Your task to perform on an android device: uninstall "Microsoft Outlook" Image 0: 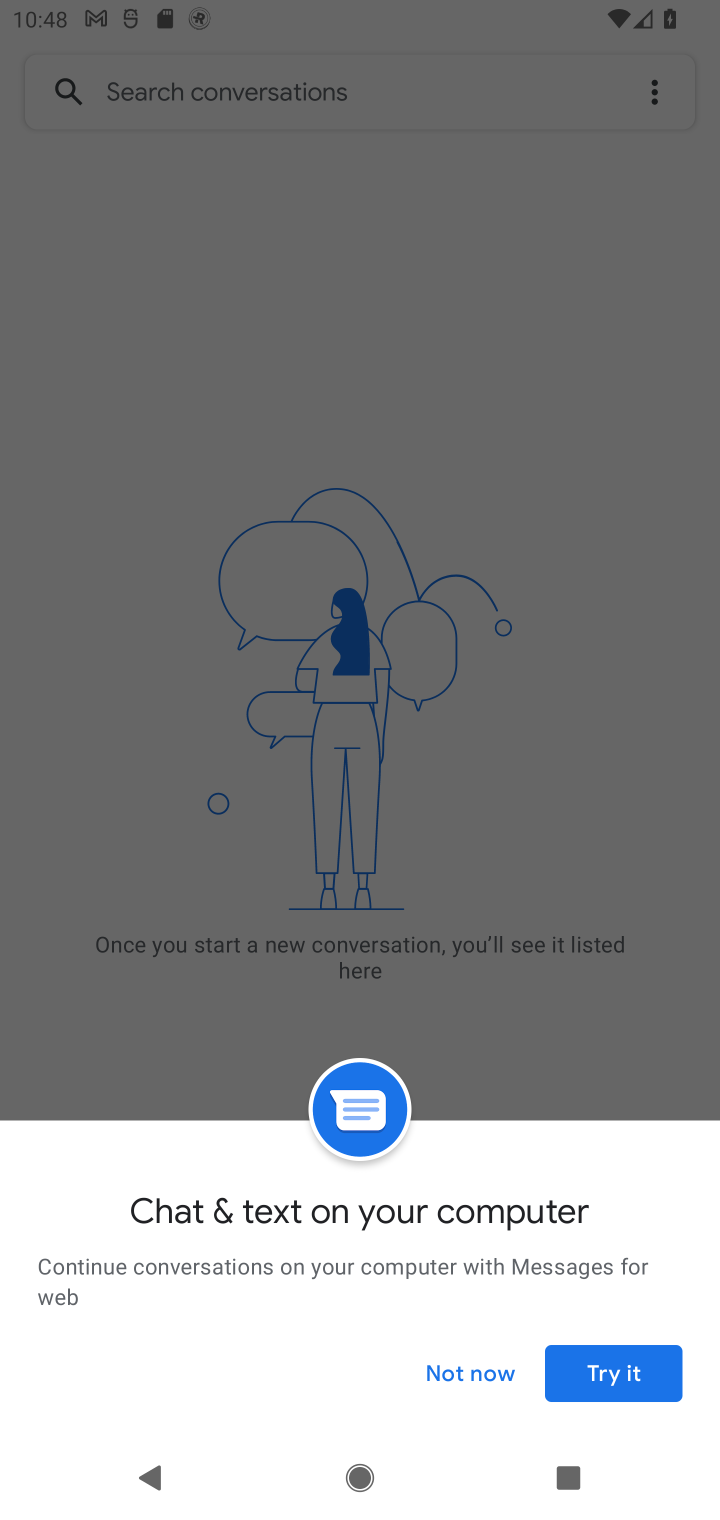
Step 0: press home button
Your task to perform on an android device: uninstall "Microsoft Outlook" Image 1: 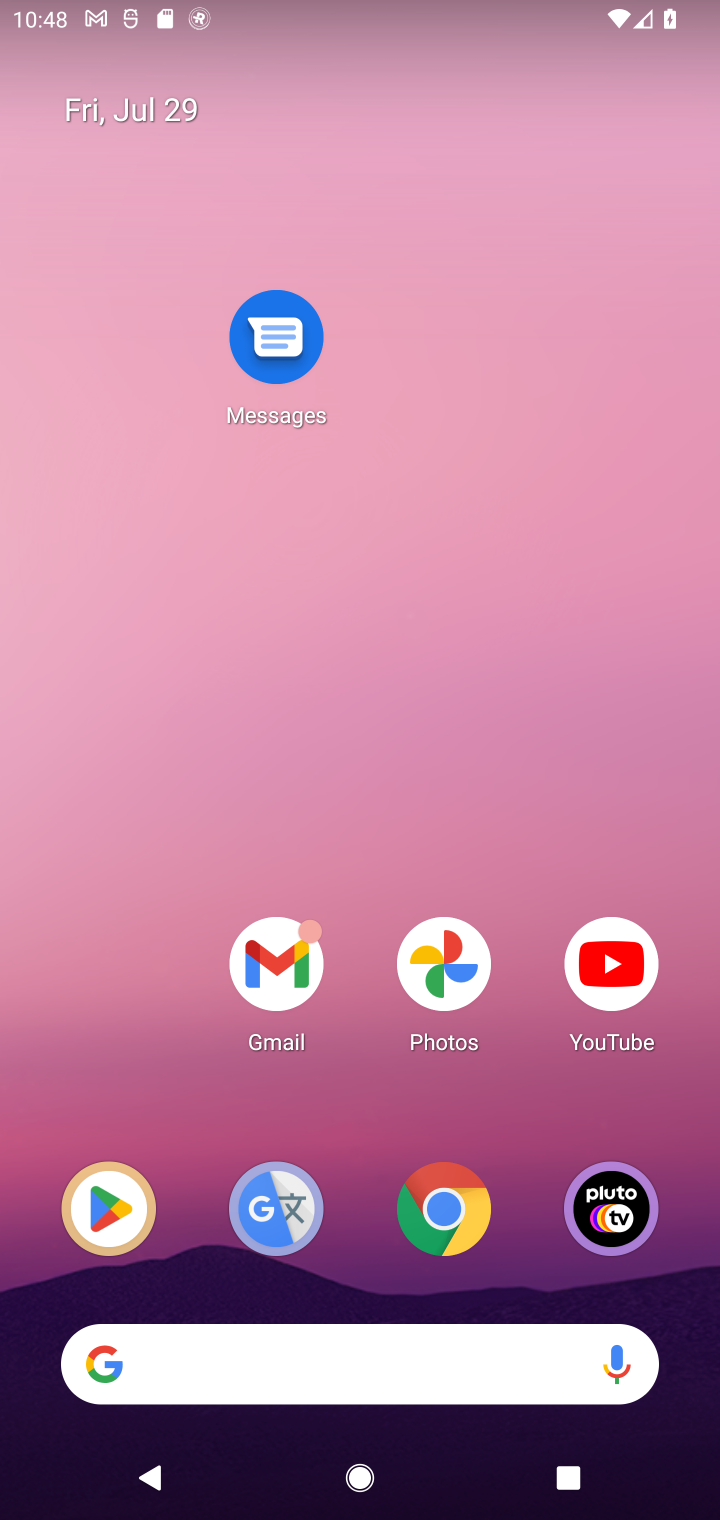
Step 1: drag from (319, 1340) to (165, 194)
Your task to perform on an android device: uninstall "Microsoft Outlook" Image 2: 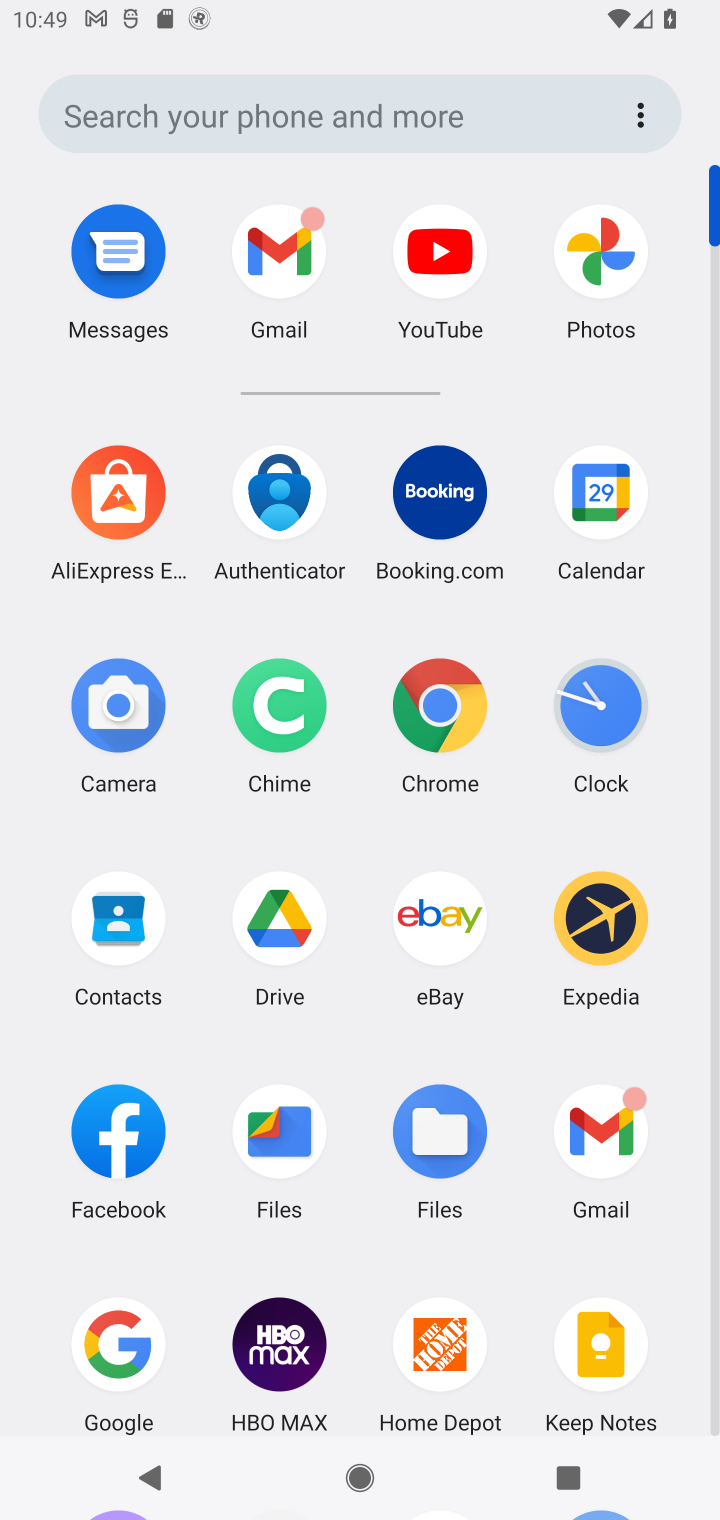
Step 2: drag from (370, 1329) to (247, 740)
Your task to perform on an android device: uninstall "Microsoft Outlook" Image 3: 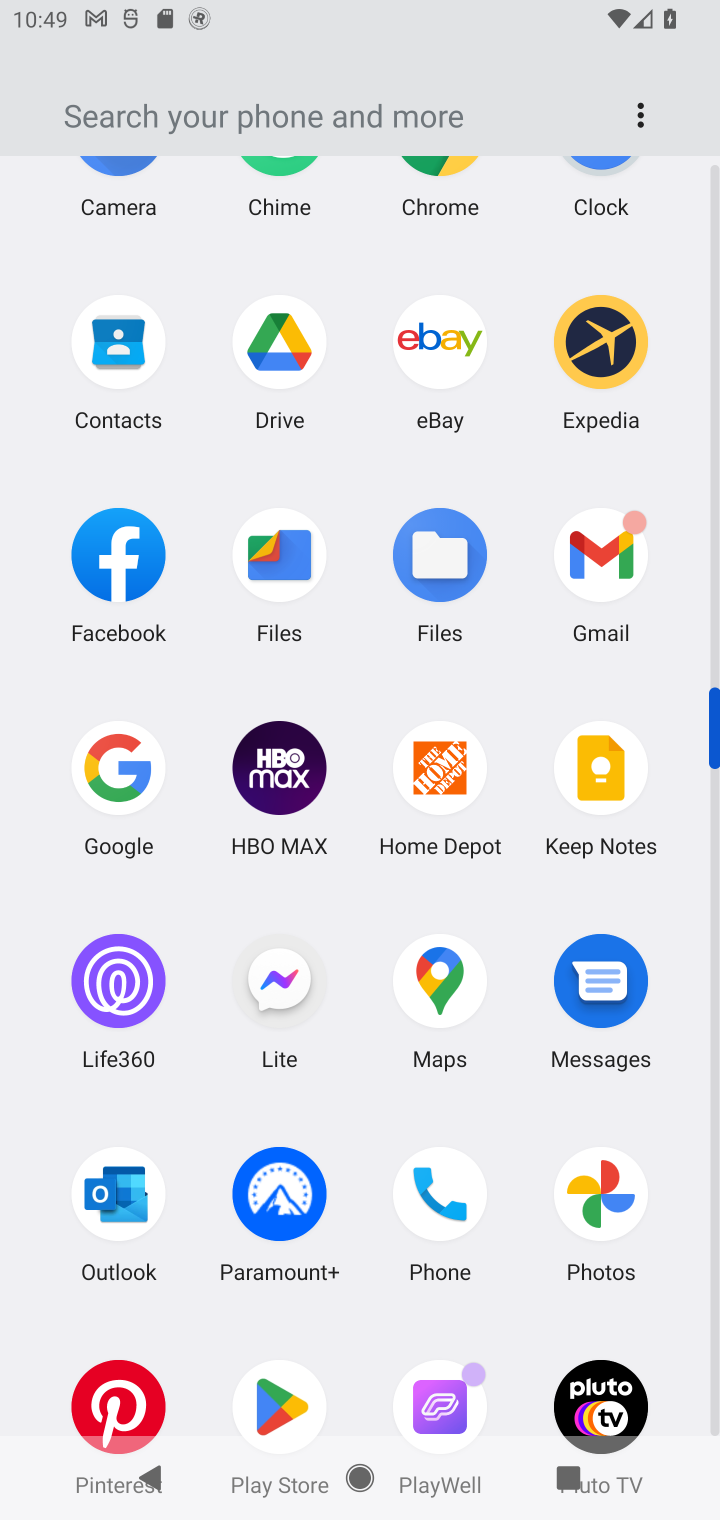
Step 3: drag from (327, 1333) to (324, 784)
Your task to perform on an android device: uninstall "Microsoft Outlook" Image 4: 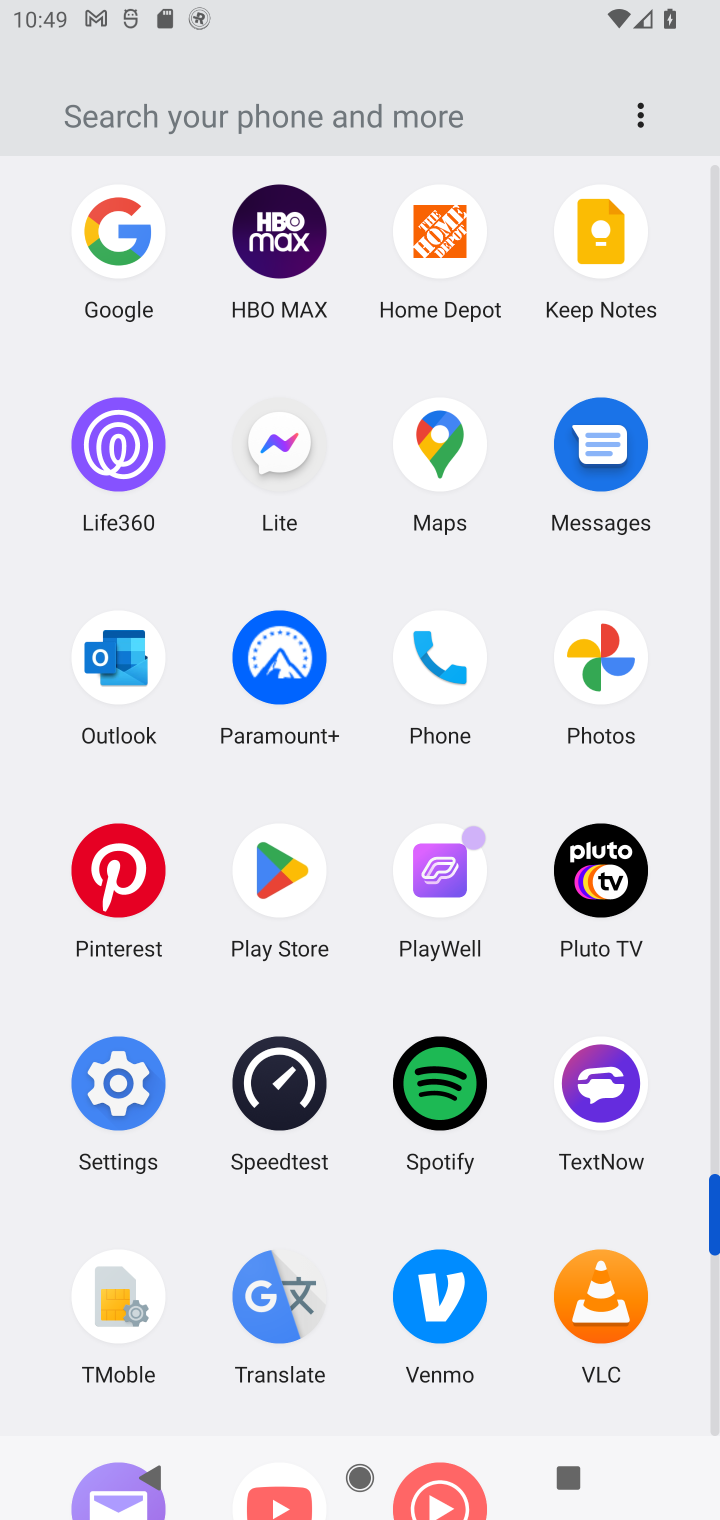
Step 4: click (280, 871)
Your task to perform on an android device: uninstall "Microsoft Outlook" Image 5: 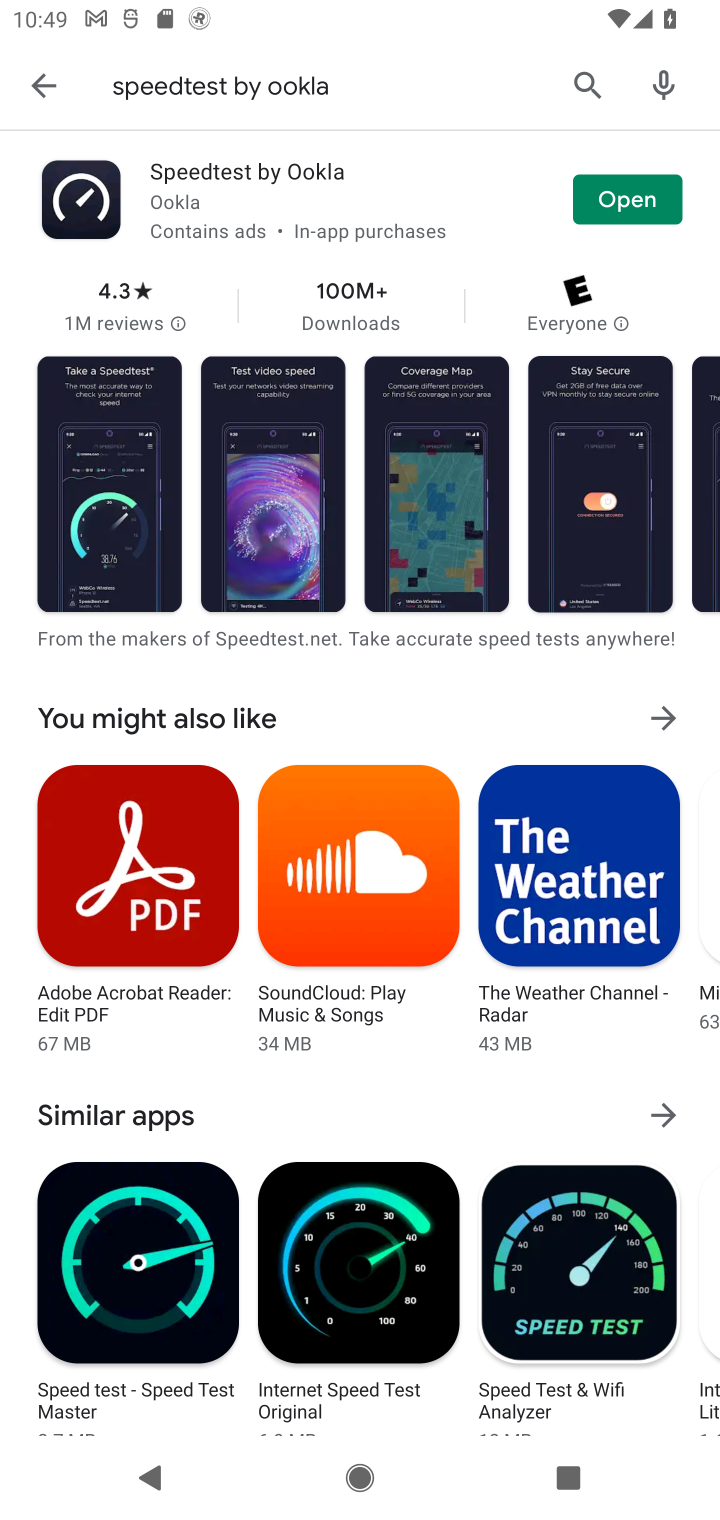
Step 5: click (583, 83)
Your task to perform on an android device: uninstall "Microsoft Outlook" Image 6: 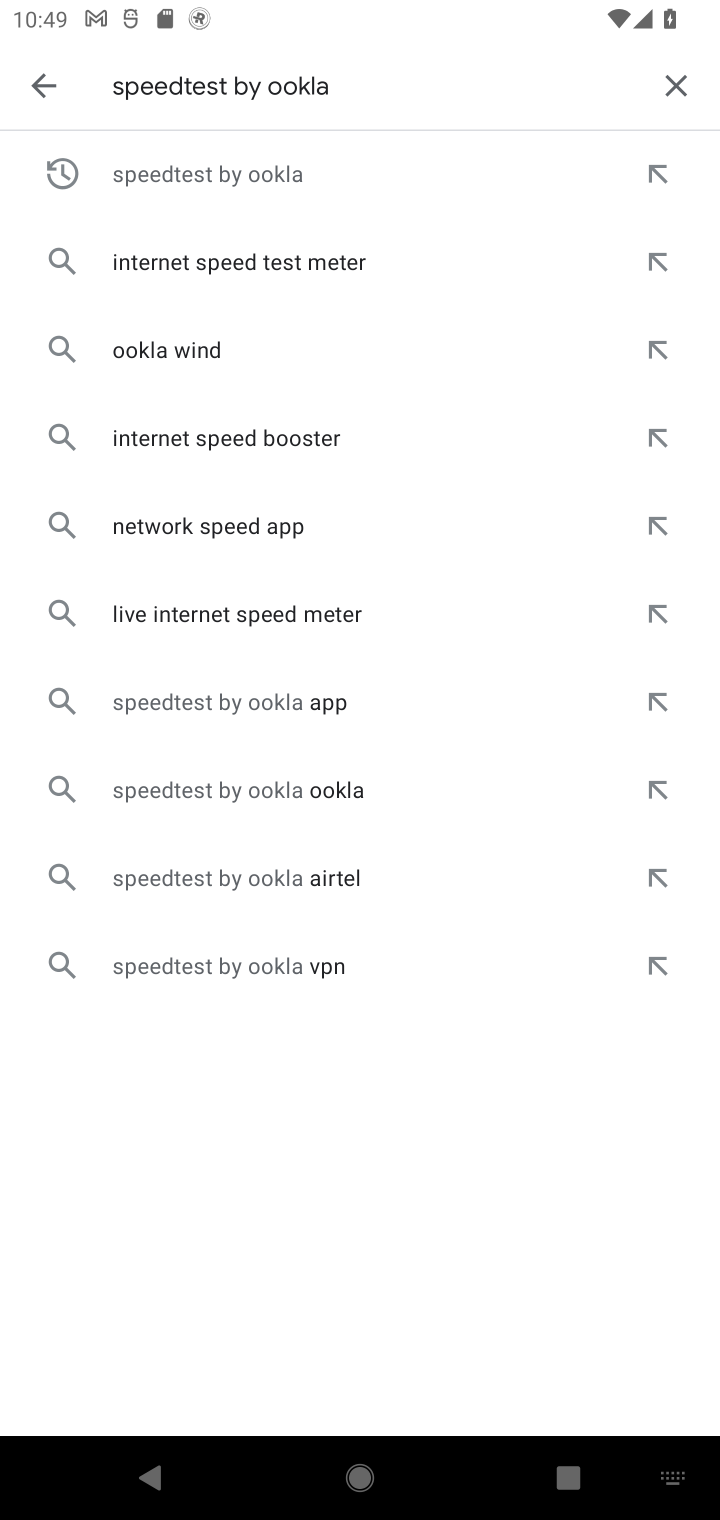
Step 6: click (673, 87)
Your task to perform on an android device: uninstall "Microsoft Outlook" Image 7: 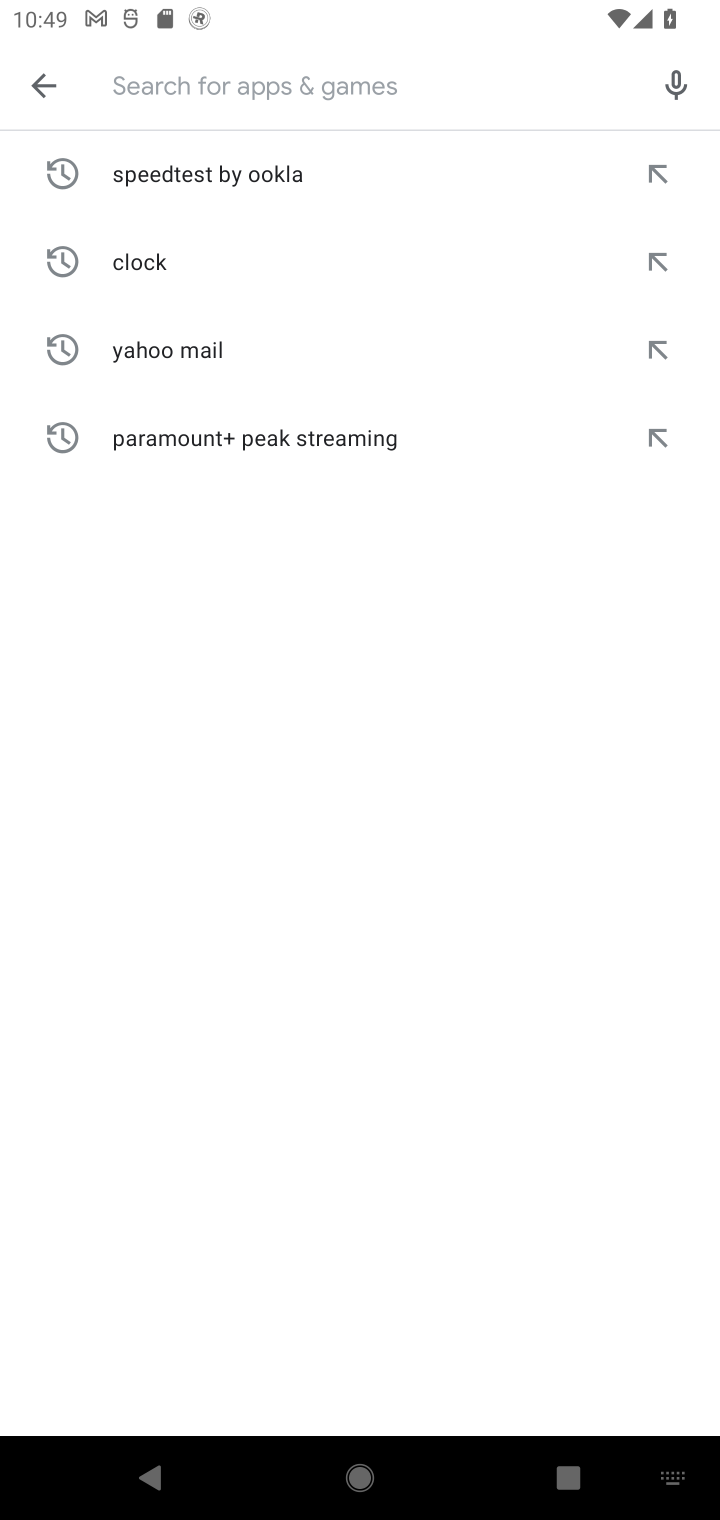
Step 7: click (146, 75)
Your task to perform on an android device: uninstall "Microsoft Outlook" Image 8: 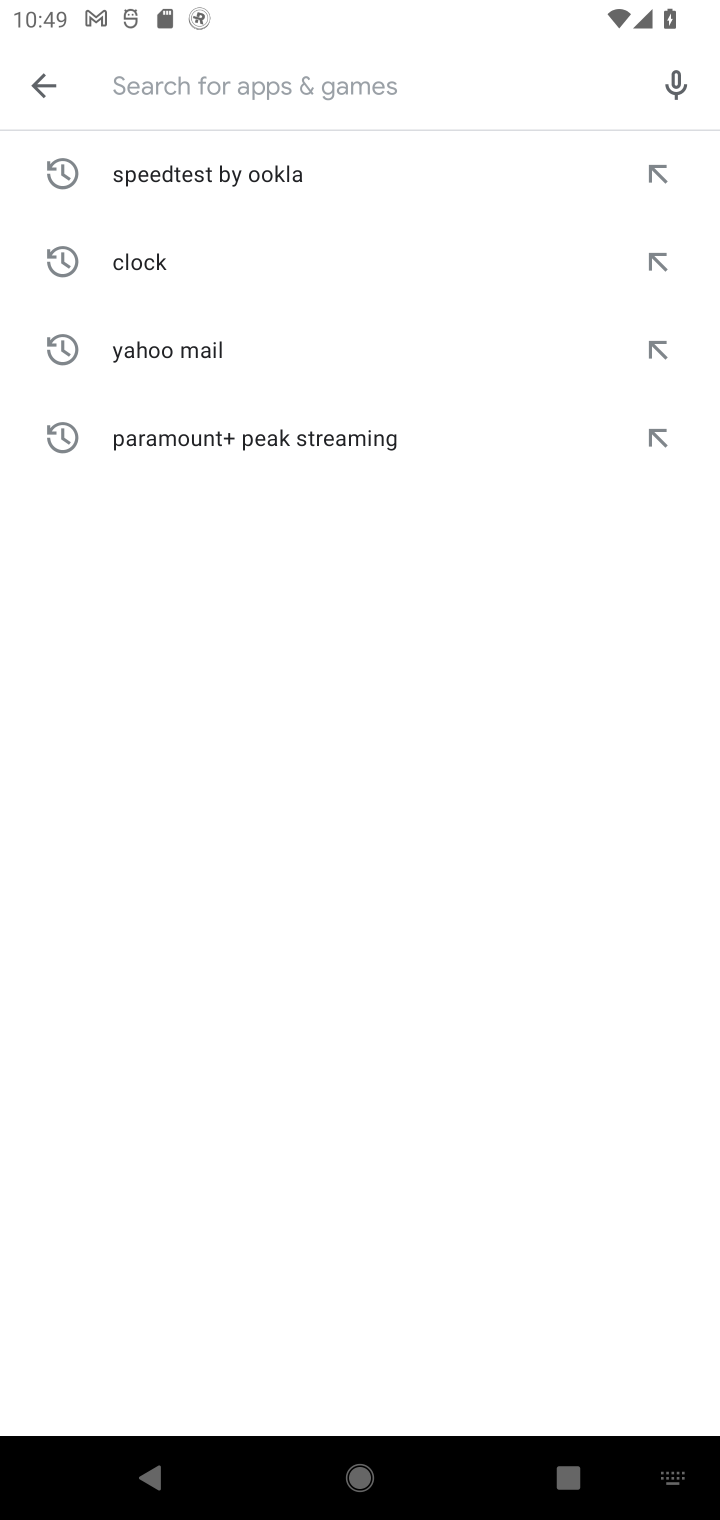
Step 8: type "Microsoft Outlook"
Your task to perform on an android device: uninstall "Microsoft Outlook" Image 9: 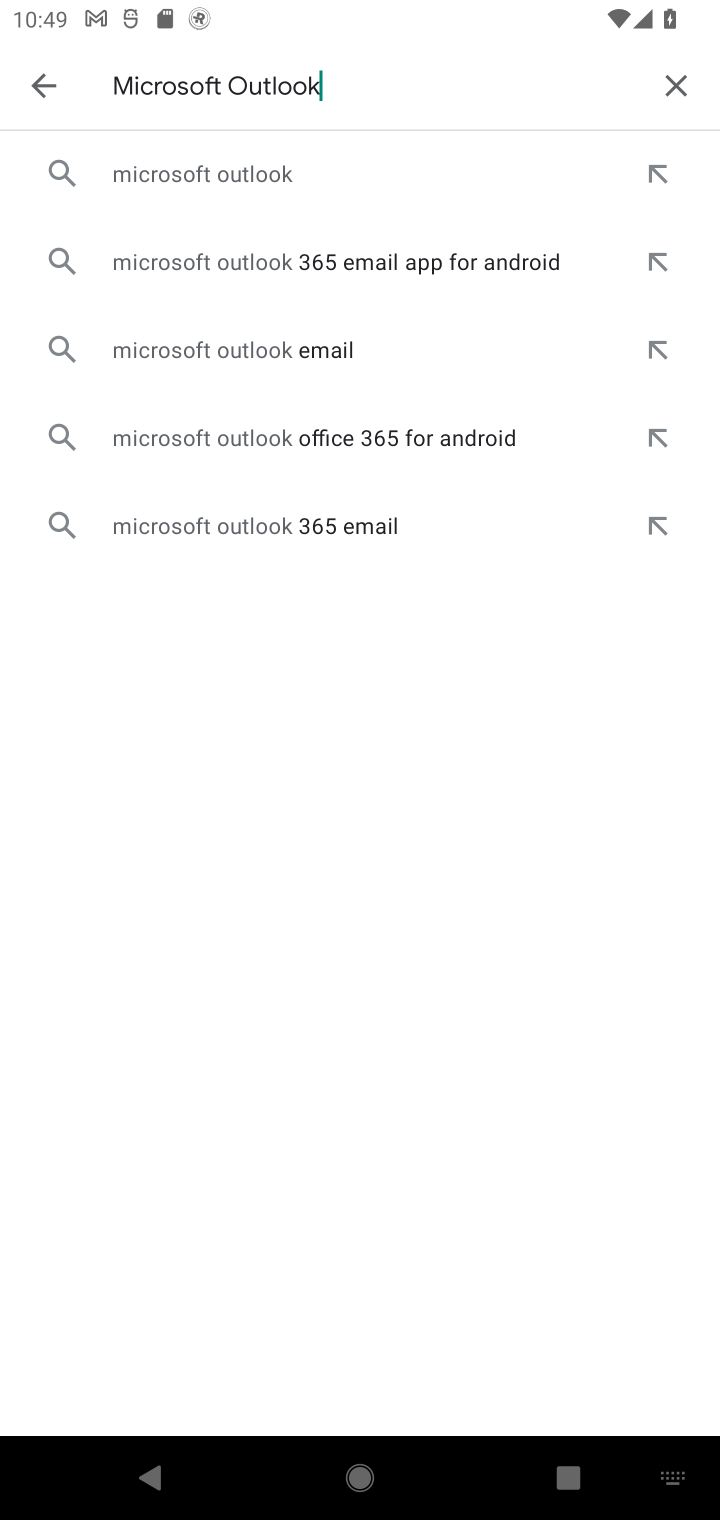
Step 9: click (285, 171)
Your task to perform on an android device: uninstall "Microsoft Outlook" Image 10: 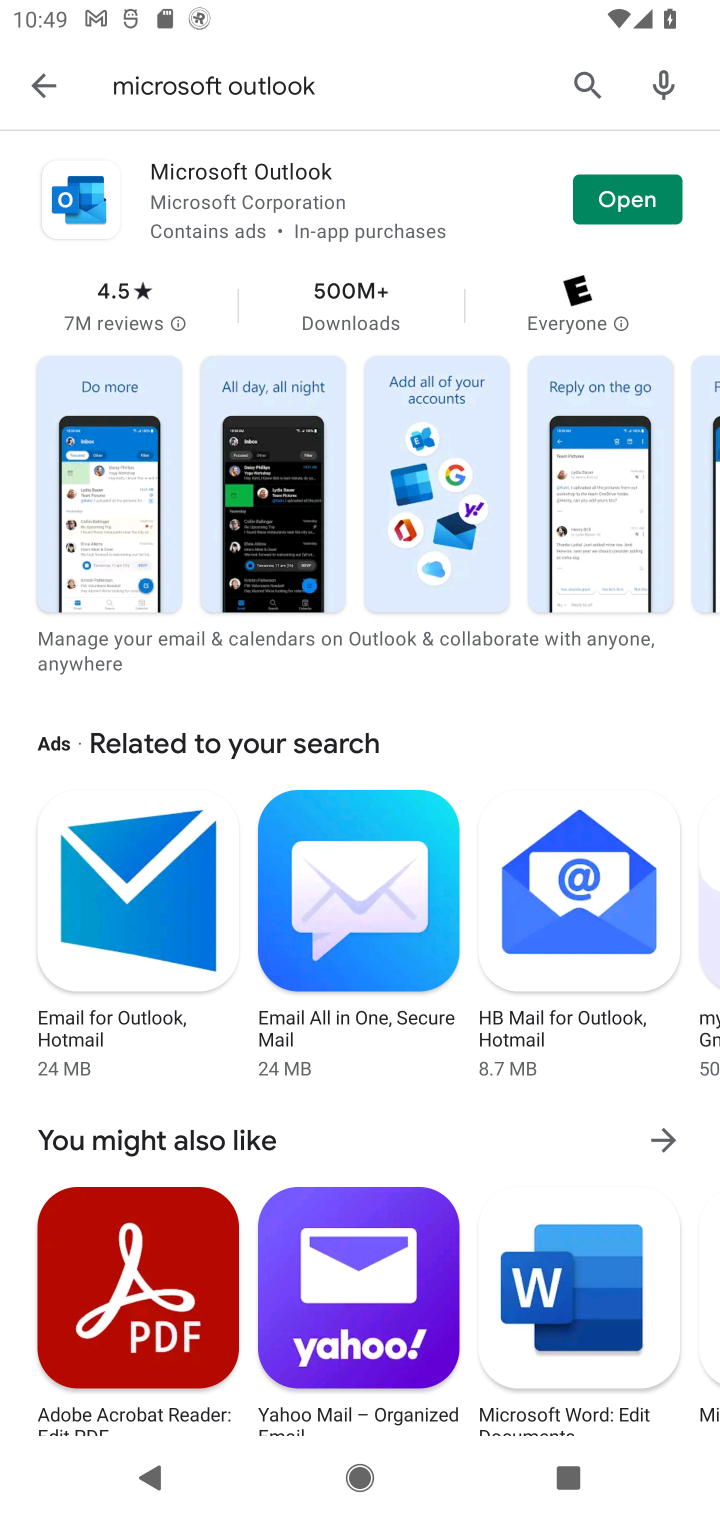
Step 10: click (264, 173)
Your task to perform on an android device: uninstall "Microsoft Outlook" Image 11: 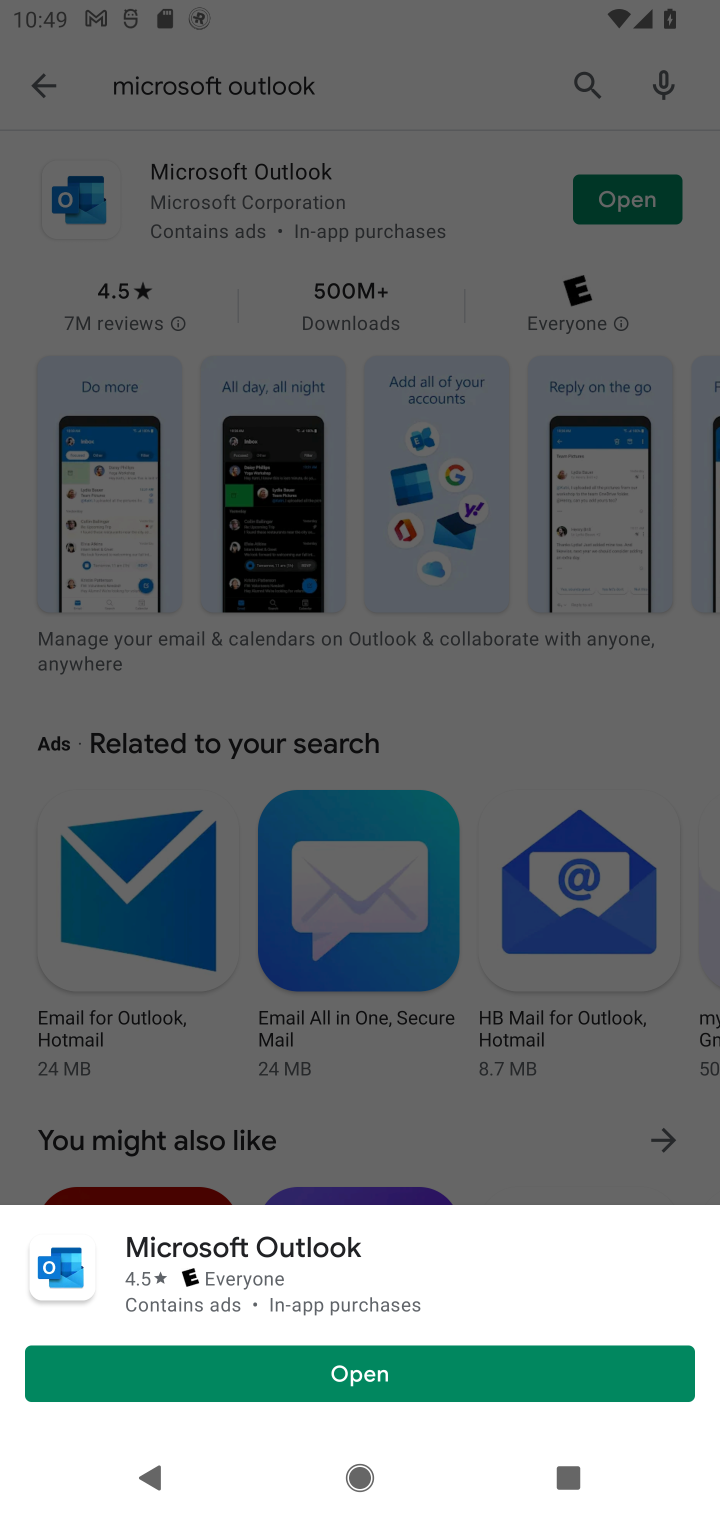
Step 11: click (486, 209)
Your task to perform on an android device: uninstall "Microsoft Outlook" Image 12: 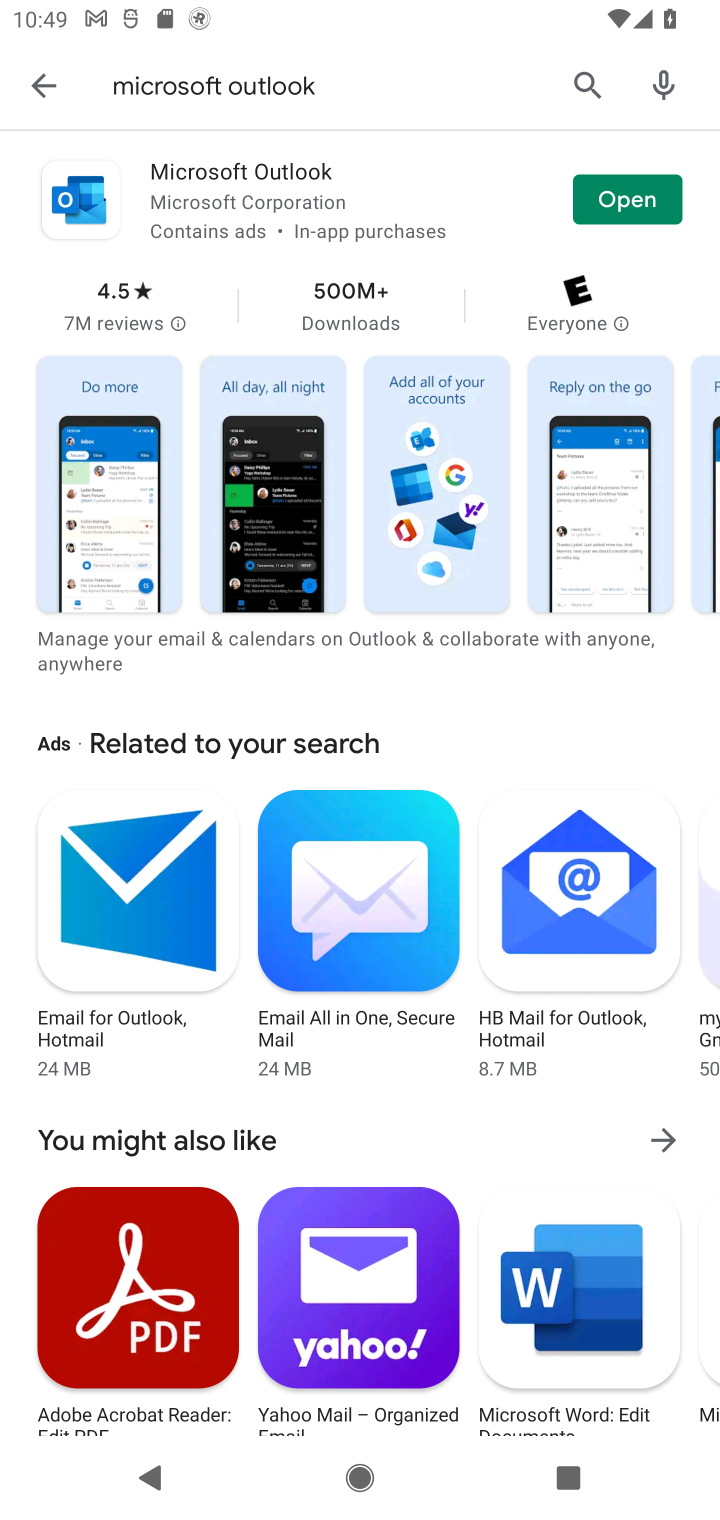
Step 12: click (232, 180)
Your task to perform on an android device: uninstall "Microsoft Outlook" Image 13: 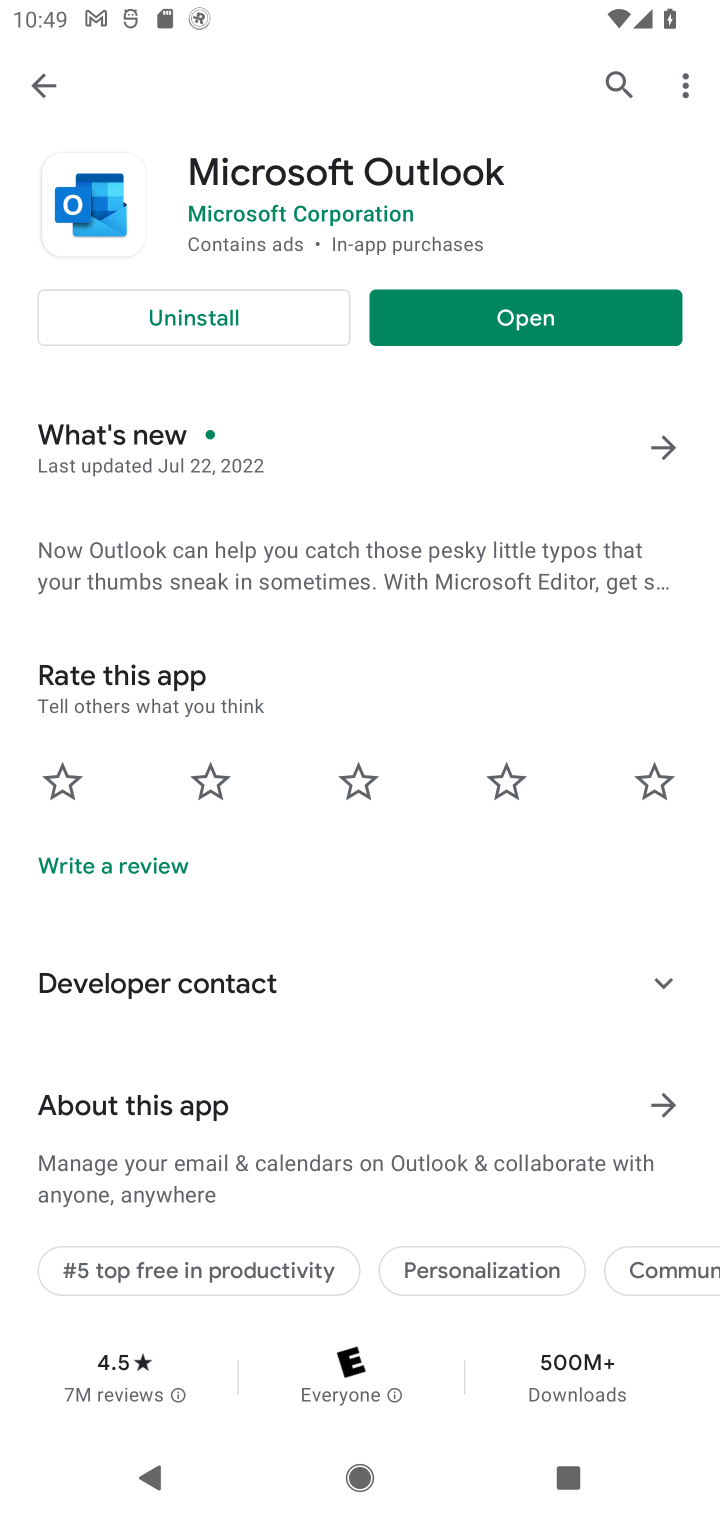
Step 13: click (190, 316)
Your task to perform on an android device: uninstall "Microsoft Outlook" Image 14: 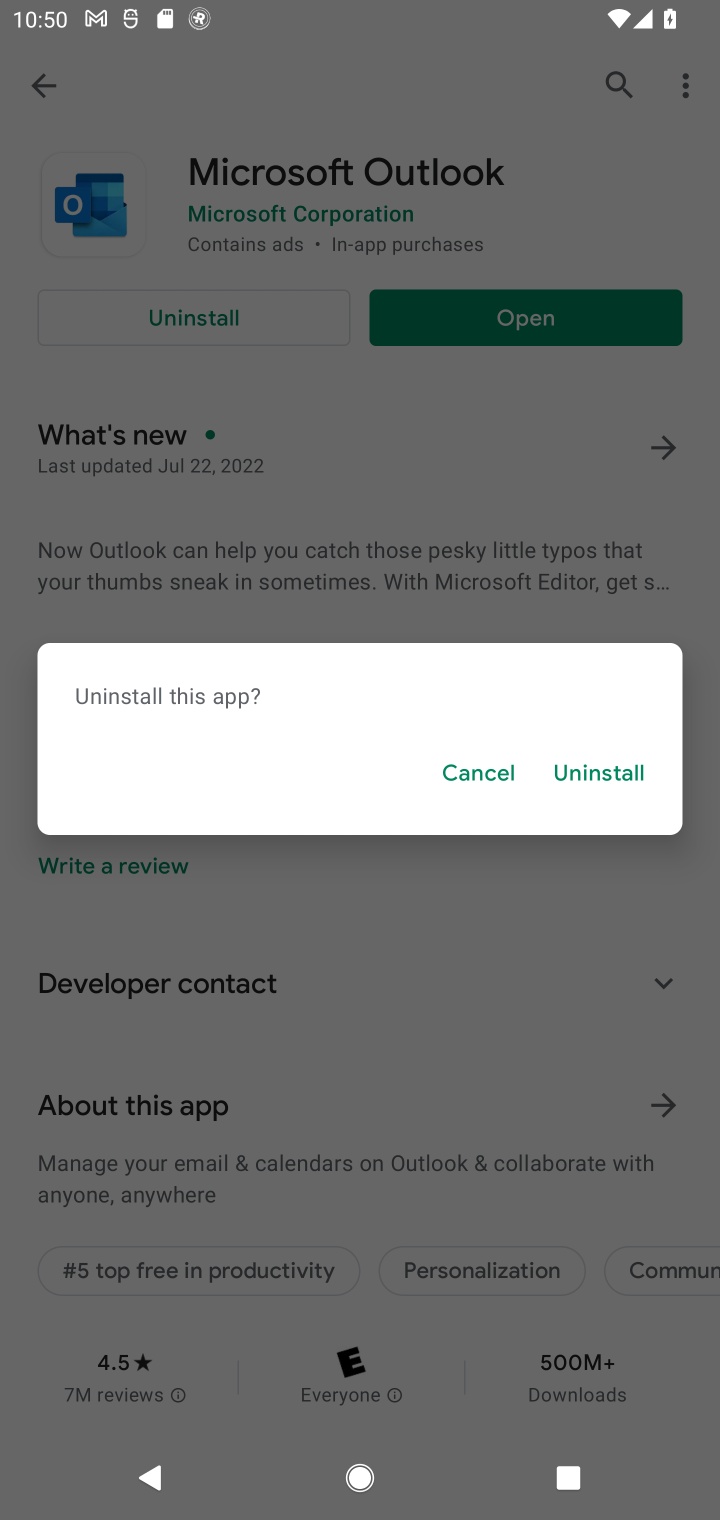
Step 14: click (617, 768)
Your task to perform on an android device: uninstall "Microsoft Outlook" Image 15: 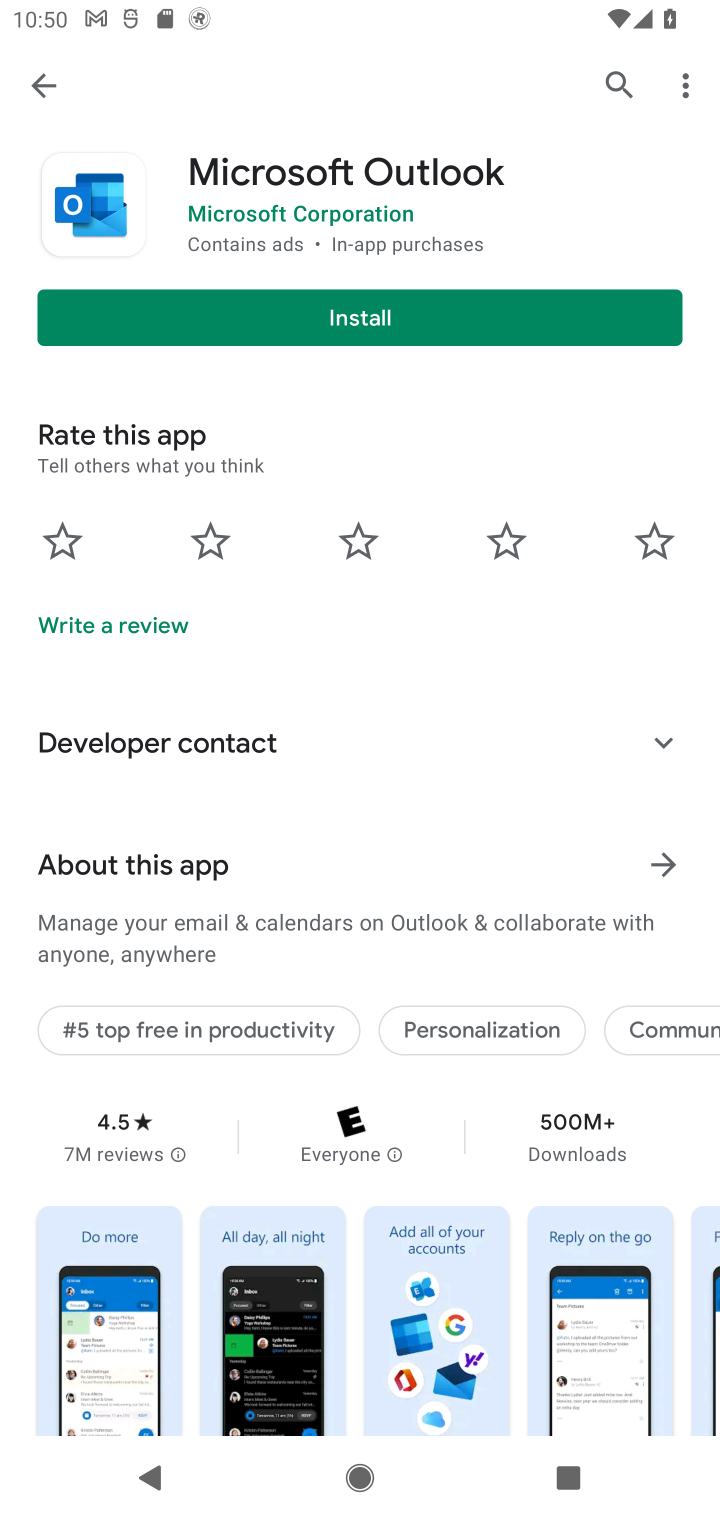
Step 15: task complete